Your task to perform on an android device: Go to network settings Image 0: 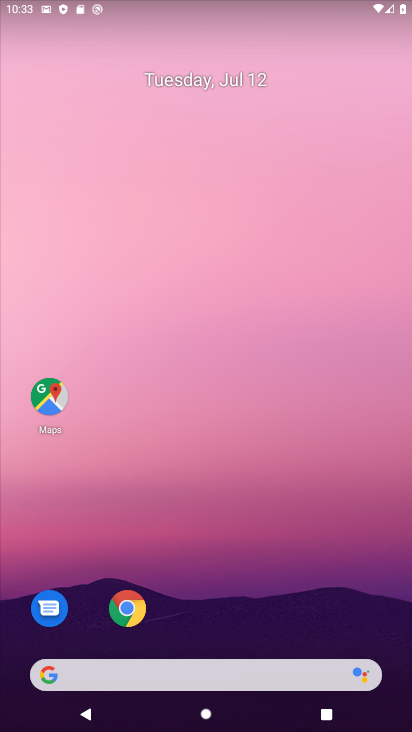
Step 0: click (182, 557)
Your task to perform on an android device: Go to network settings Image 1: 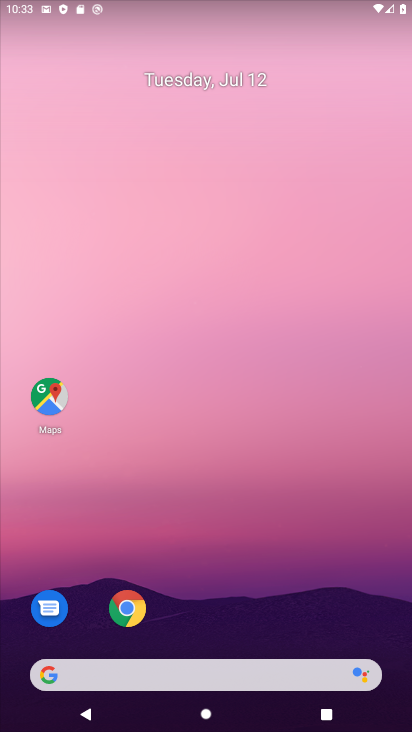
Step 1: drag from (162, 9) to (227, 630)
Your task to perform on an android device: Go to network settings Image 2: 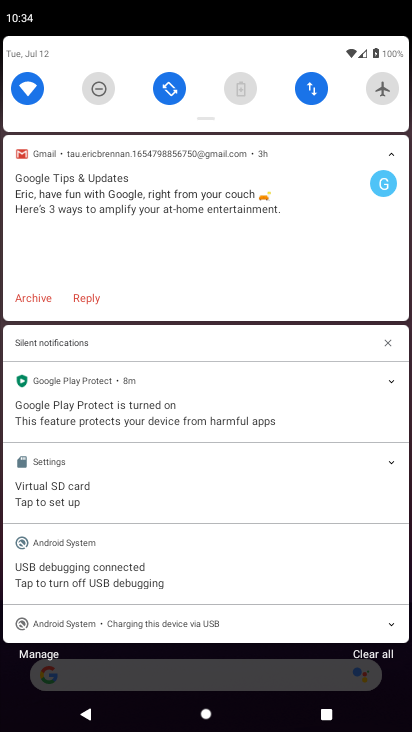
Step 2: click (305, 96)
Your task to perform on an android device: Go to network settings Image 3: 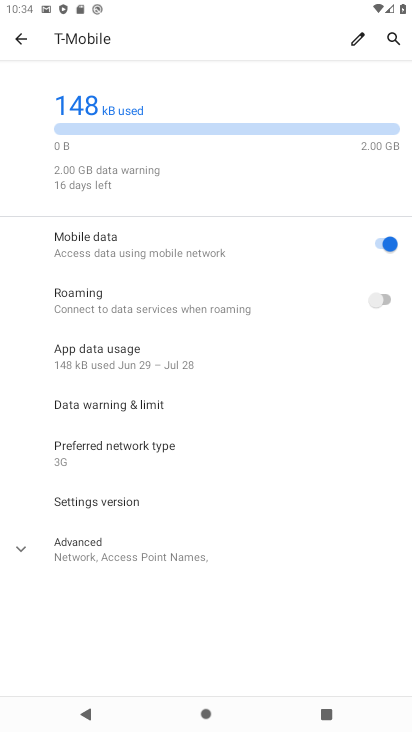
Step 3: task complete